Your task to perform on an android device: Play the last video I watched on Youtube Image 0: 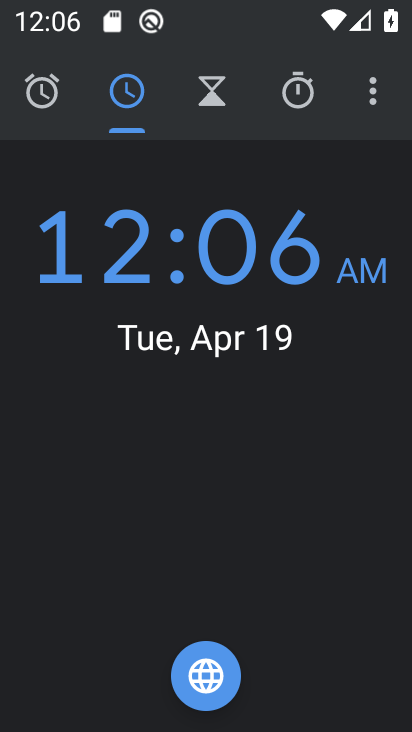
Step 0: press back button
Your task to perform on an android device: Play the last video I watched on Youtube Image 1: 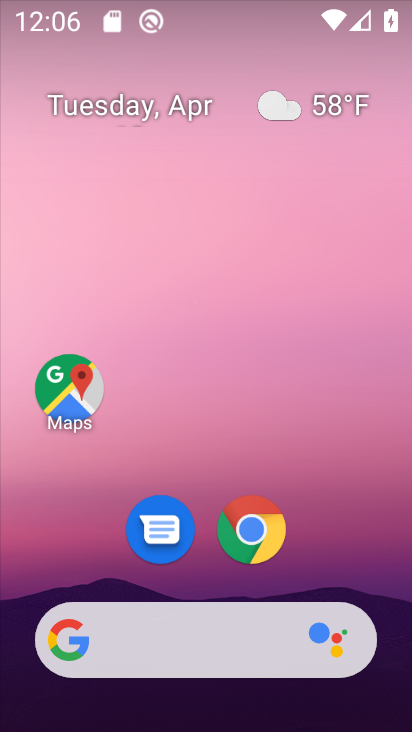
Step 1: drag from (261, 434) to (328, 36)
Your task to perform on an android device: Play the last video I watched on Youtube Image 2: 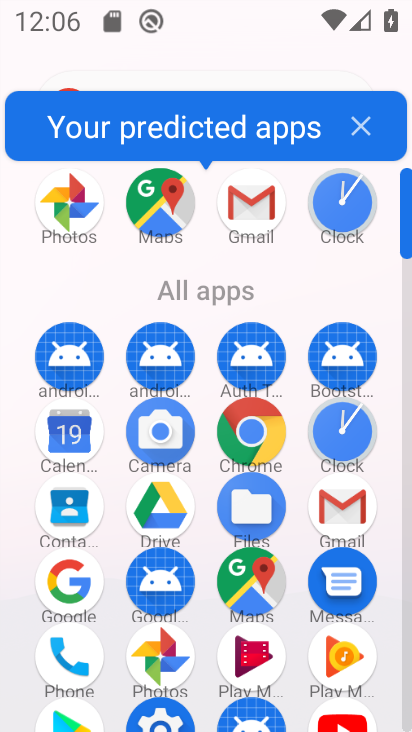
Step 2: drag from (400, 590) to (411, 384)
Your task to perform on an android device: Play the last video I watched on Youtube Image 3: 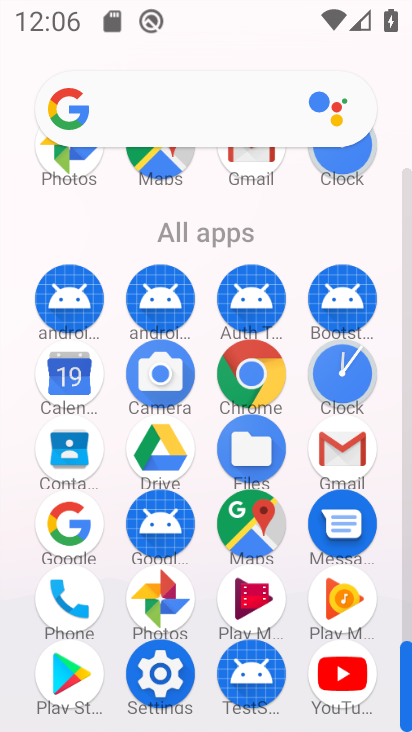
Step 3: click (354, 672)
Your task to perform on an android device: Play the last video I watched on Youtube Image 4: 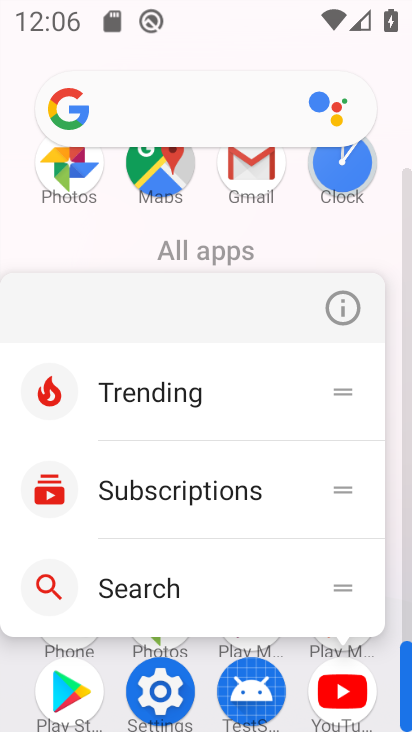
Step 4: click (350, 674)
Your task to perform on an android device: Play the last video I watched on Youtube Image 5: 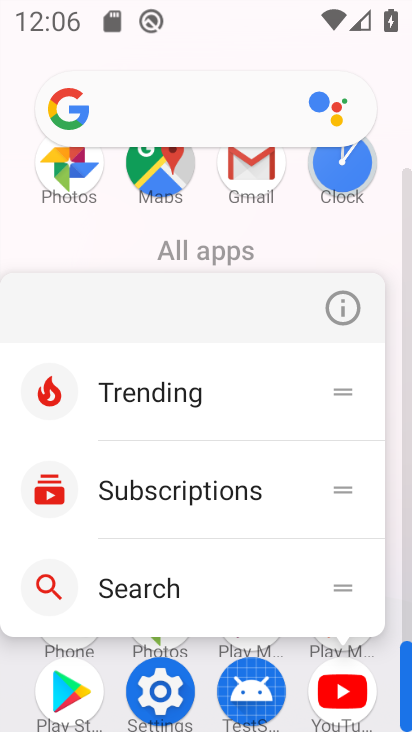
Step 5: click (344, 696)
Your task to perform on an android device: Play the last video I watched on Youtube Image 6: 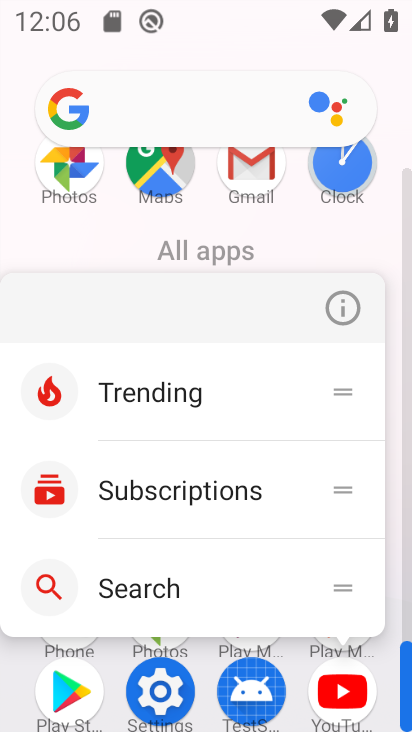
Step 6: click (344, 696)
Your task to perform on an android device: Play the last video I watched on Youtube Image 7: 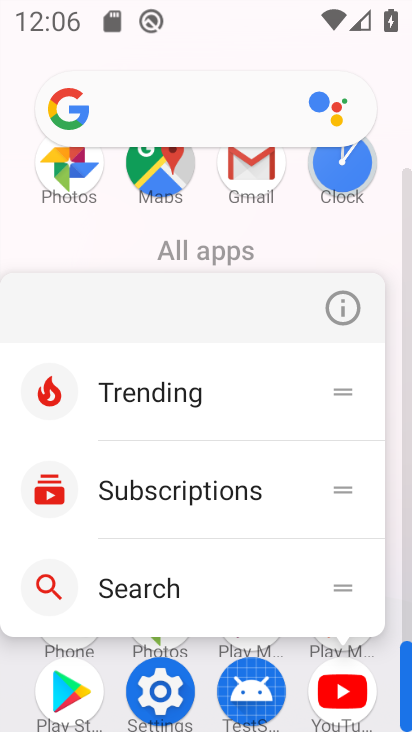
Step 7: click (344, 696)
Your task to perform on an android device: Play the last video I watched on Youtube Image 8: 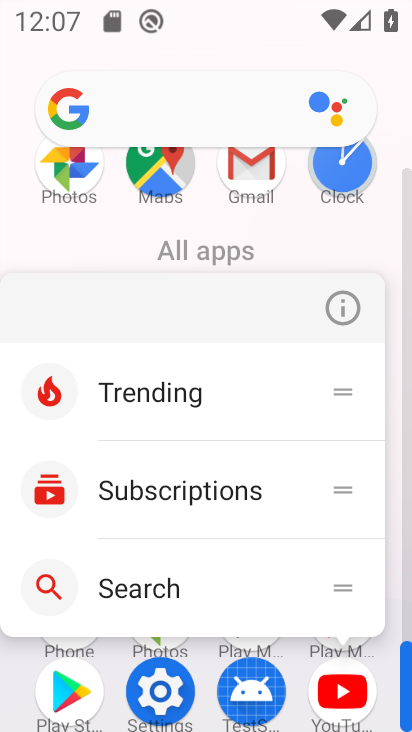
Step 8: click (340, 698)
Your task to perform on an android device: Play the last video I watched on Youtube Image 9: 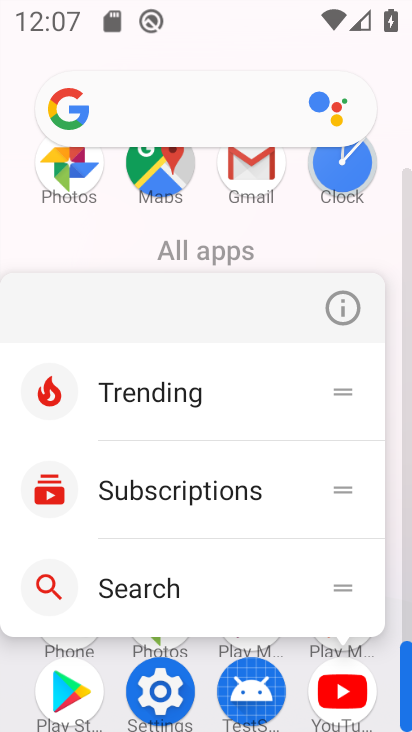
Step 9: click (348, 696)
Your task to perform on an android device: Play the last video I watched on Youtube Image 10: 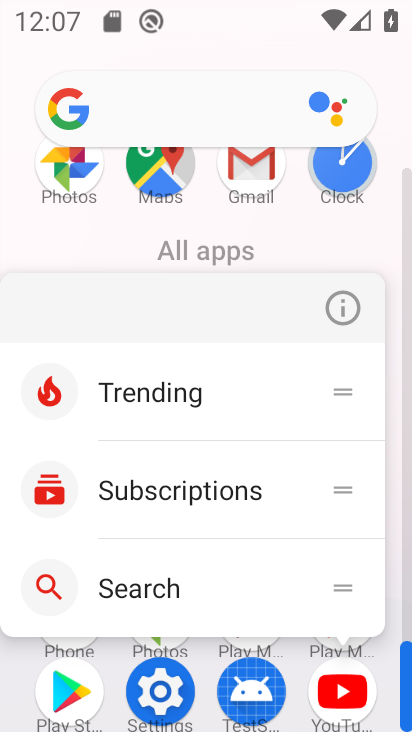
Step 10: click (349, 693)
Your task to perform on an android device: Play the last video I watched on Youtube Image 11: 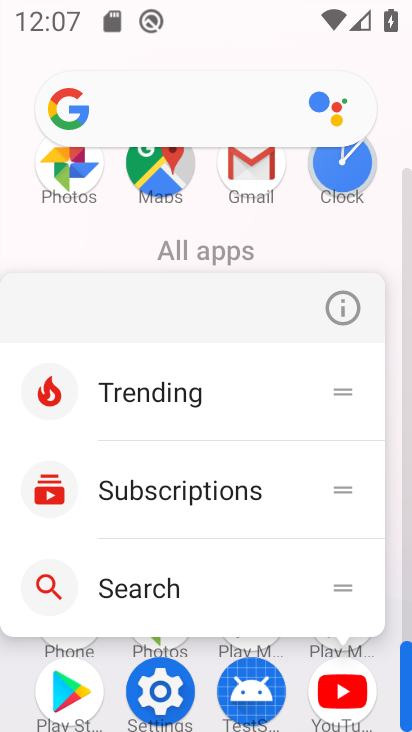
Step 11: click (351, 685)
Your task to perform on an android device: Play the last video I watched on Youtube Image 12: 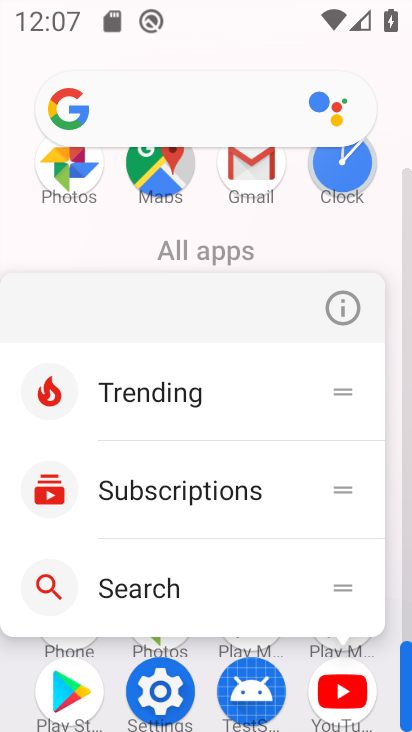
Step 12: click (351, 685)
Your task to perform on an android device: Play the last video I watched on Youtube Image 13: 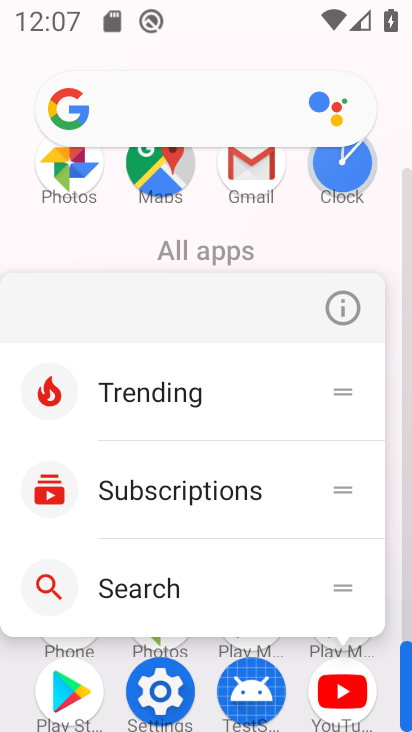
Step 13: click (351, 687)
Your task to perform on an android device: Play the last video I watched on Youtube Image 14: 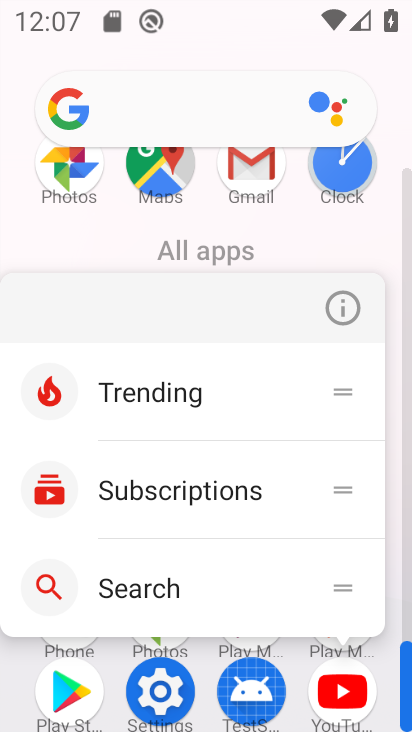
Step 14: click (350, 685)
Your task to perform on an android device: Play the last video I watched on Youtube Image 15: 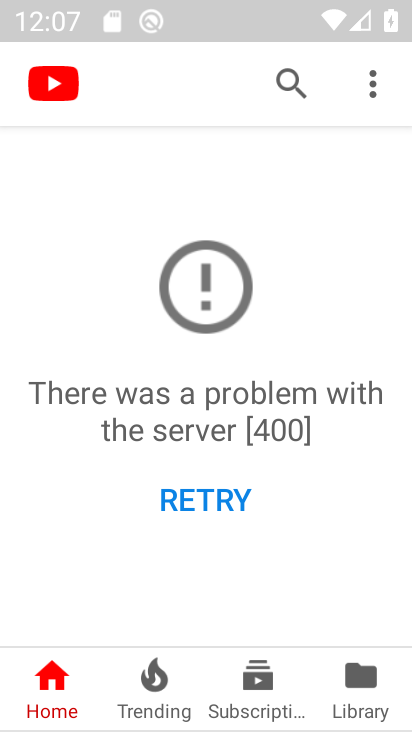
Step 15: click (353, 683)
Your task to perform on an android device: Play the last video I watched on Youtube Image 16: 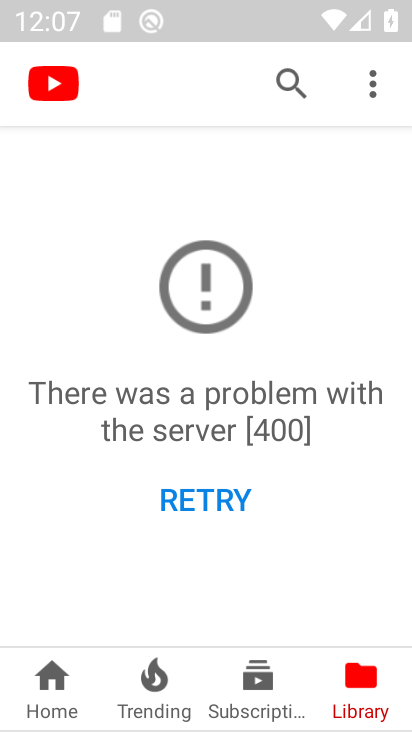
Step 16: task complete